Your task to perform on an android device: Open Yahoo.com Image 0: 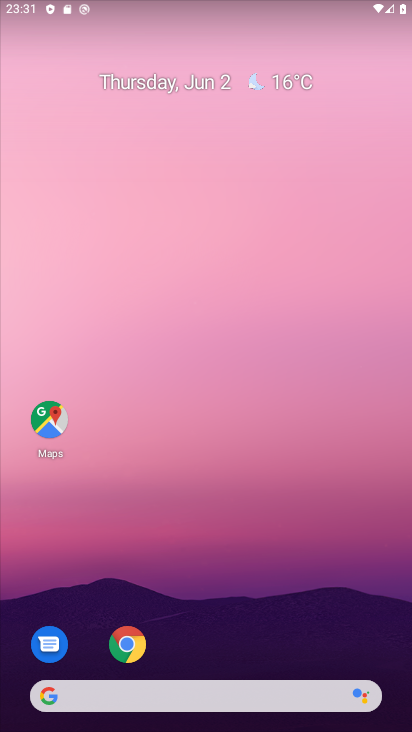
Step 0: click (127, 642)
Your task to perform on an android device: Open Yahoo.com Image 1: 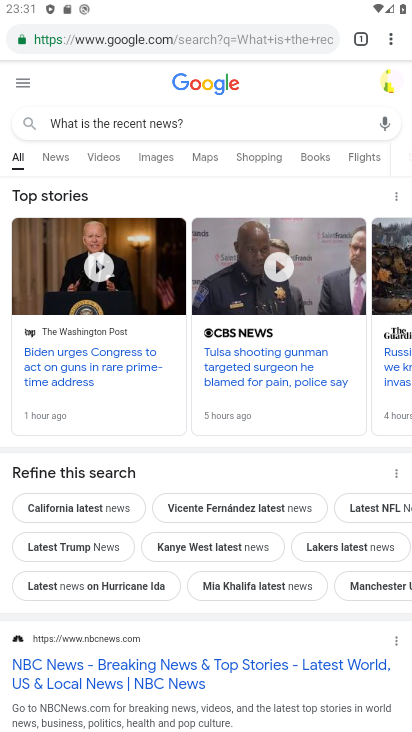
Step 1: click (89, 43)
Your task to perform on an android device: Open Yahoo.com Image 2: 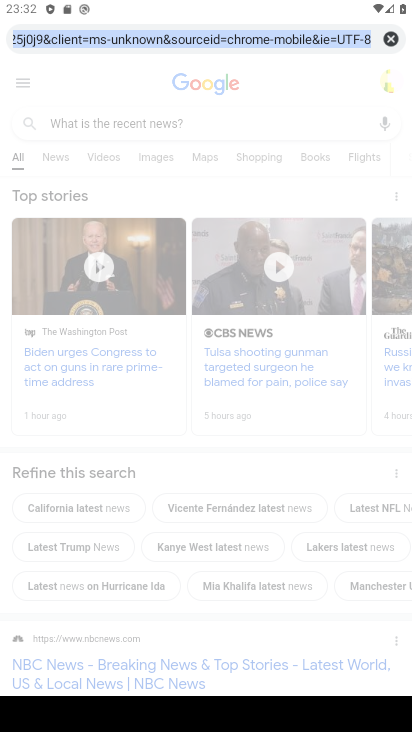
Step 2: type "Yahoo.com"
Your task to perform on an android device: Open Yahoo.com Image 3: 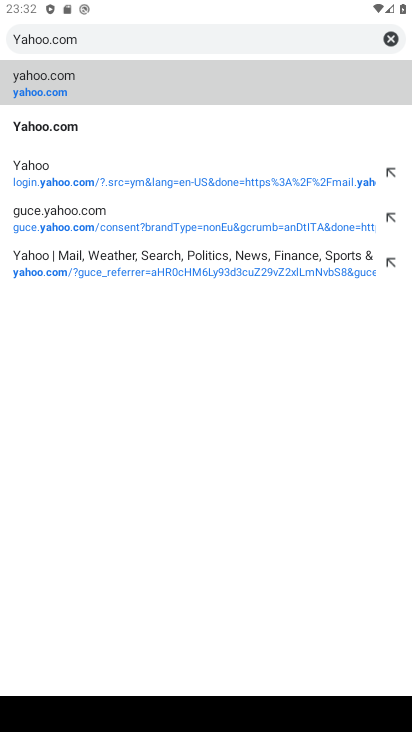
Step 3: click (69, 90)
Your task to perform on an android device: Open Yahoo.com Image 4: 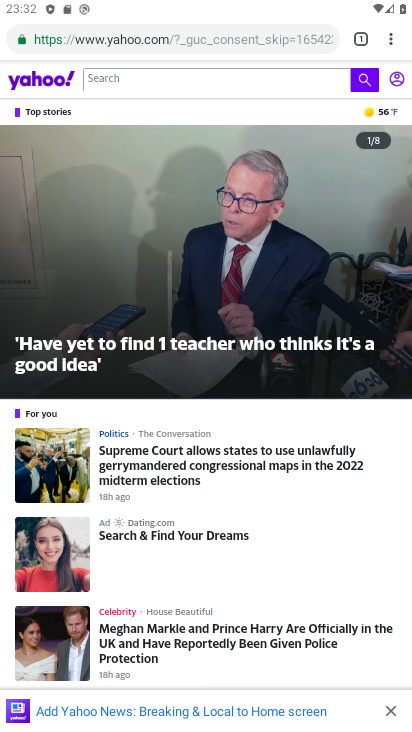
Step 4: task complete